Your task to perform on an android device: Go to calendar. Show me events next week Image 0: 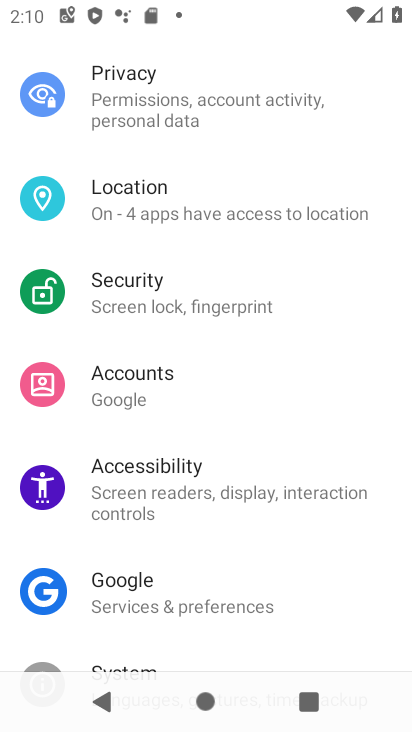
Step 0: press home button
Your task to perform on an android device: Go to calendar. Show me events next week Image 1: 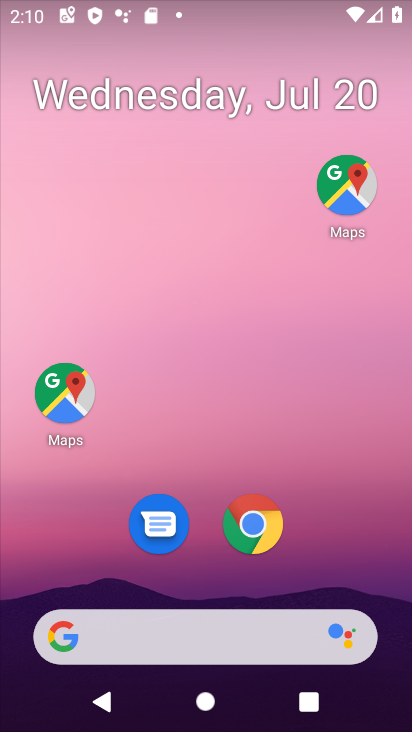
Step 1: drag from (310, 567) to (318, 157)
Your task to perform on an android device: Go to calendar. Show me events next week Image 2: 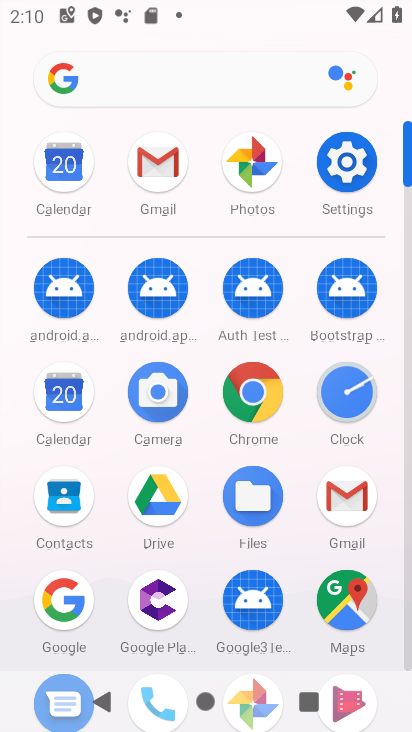
Step 2: click (70, 159)
Your task to perform on an android device: Go to calendar. Show me events next week Image 3: 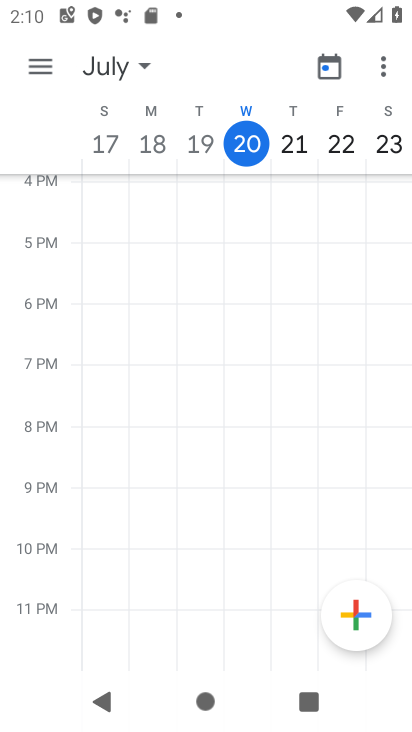
Step 3: task complete